Your task to perform on an android device: Go to Amazon Image 0: 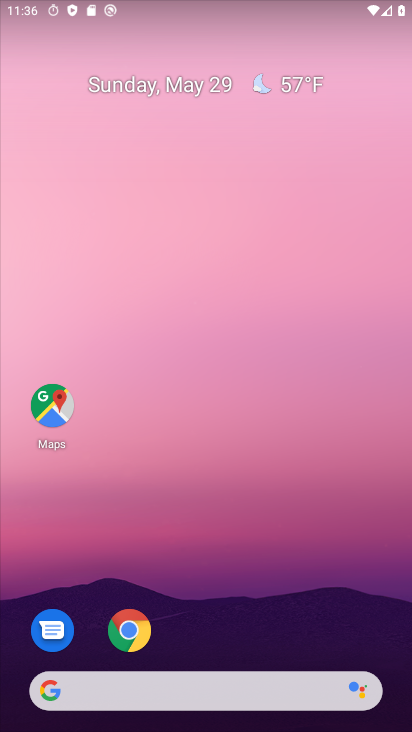
Step 0: drag from (270, 716) to (201, 150)
Your task to perform on an android device: Go to Amazon Image 1: 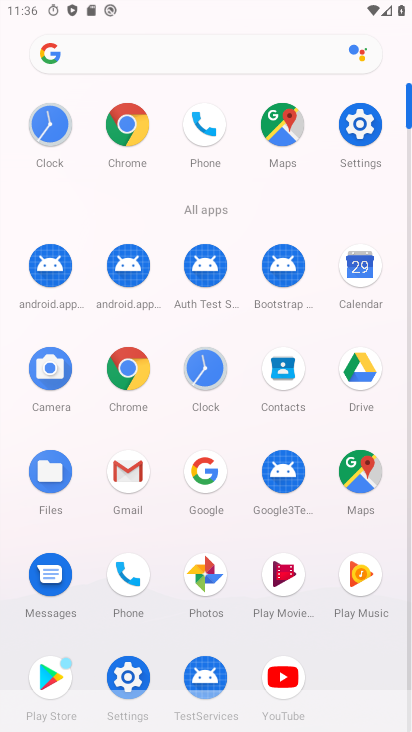
Step 1: click (130, 367)
Your task to perform on an android device: Go to Amazon Image 2: 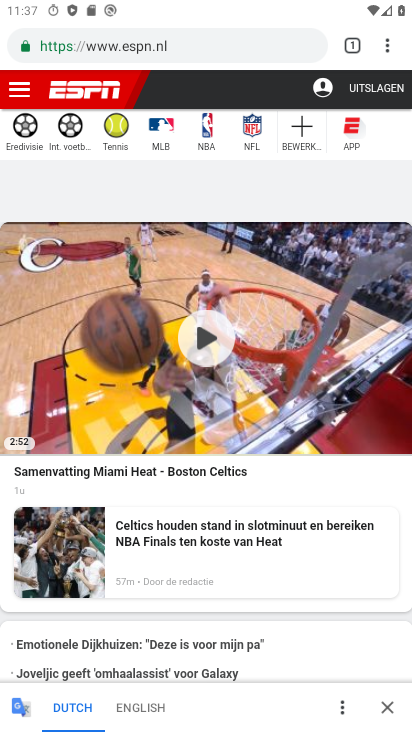
Step 2: click (357, 44)
Your task to perform on an android device: Go to Amazon Image 3: 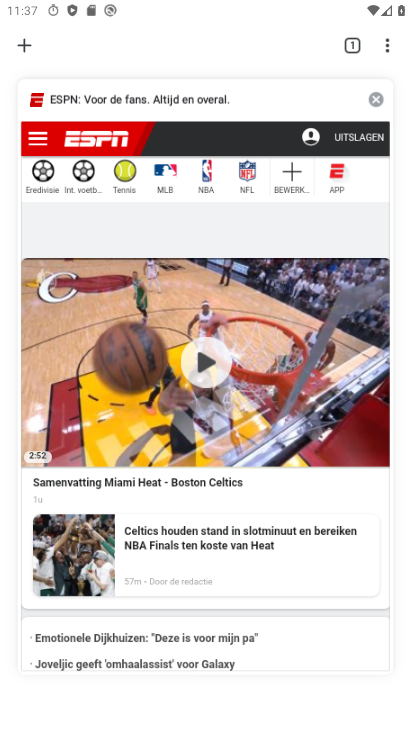
Step 3: click (20, 40)
Your task to perform on an android device: Go to Amazon Image 4: 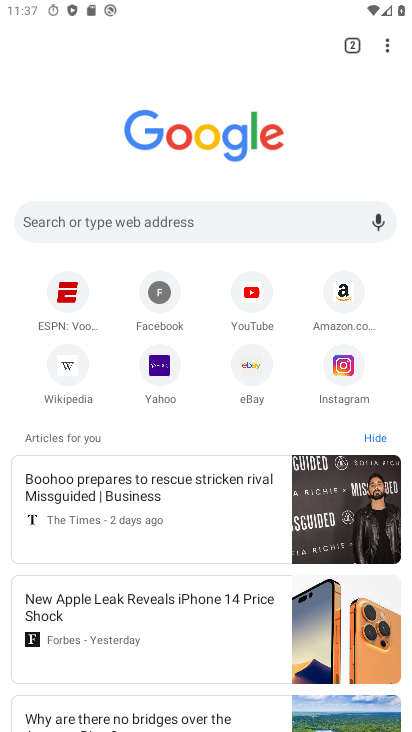
Step 4: click (331, 300)
Your task to perform on an android device: Go to Amazon Image 5: 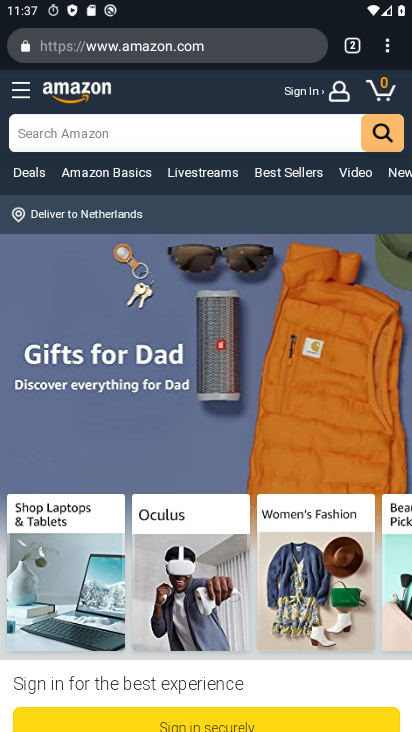
Step 5: task complete